Your task to perform on an android device: Go to sound settings Image 0: 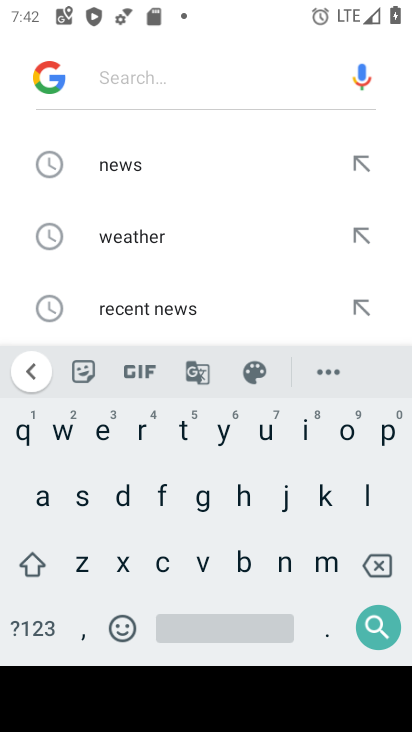
Step 0: press home button
Your task to perform on an android device: Go to sound settings Image 1: 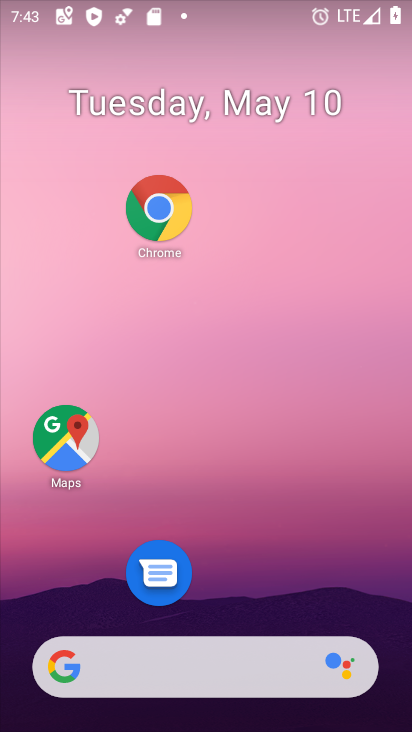
Step 1: drag from (258, 686) to (290, 310)
Your task to perform on an android device: Go to sound settings Image 2: 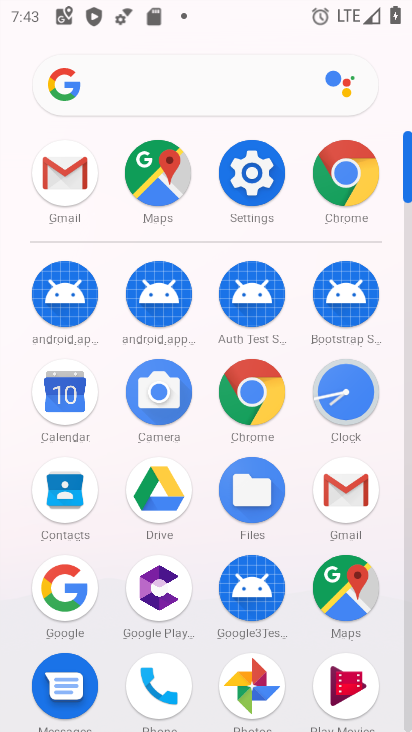
Step 2: click (240, 175)
Your task to perform on an android device: Go to sound settings Image 3: 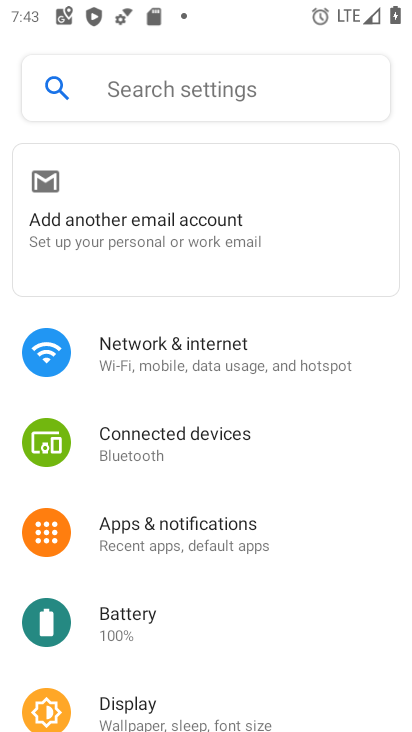
Step 3: click (169, 96)
Your task to perform on an android device: Go to sound settings Image 4: 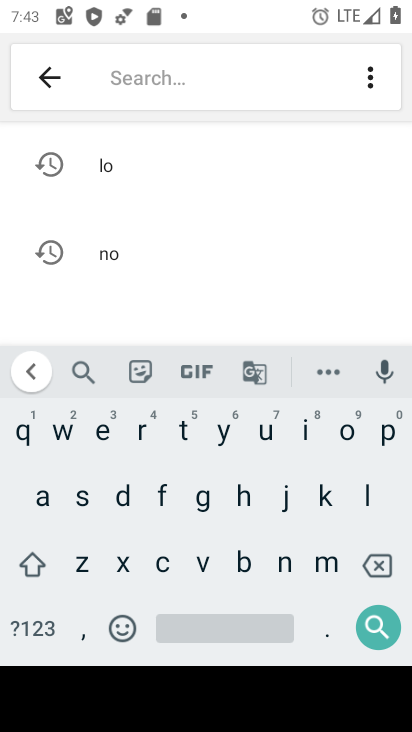
Step 4: click (79, 498)
Your task to perform on an android device: Go to sound settings Image 5: 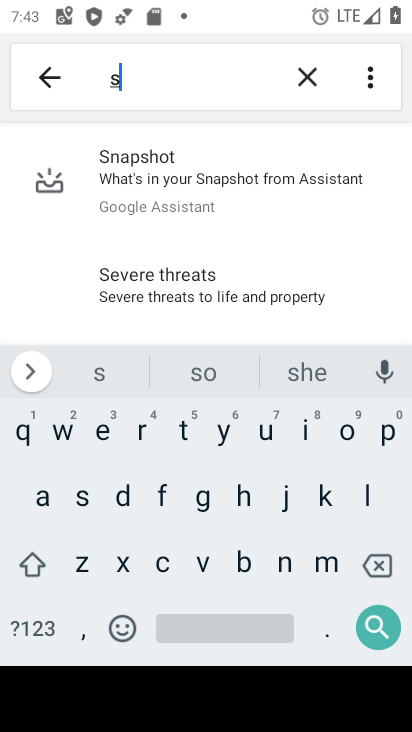
Step 5: click (348, 434)
Your task to perform on an android device: Go to sound settings Image 6: 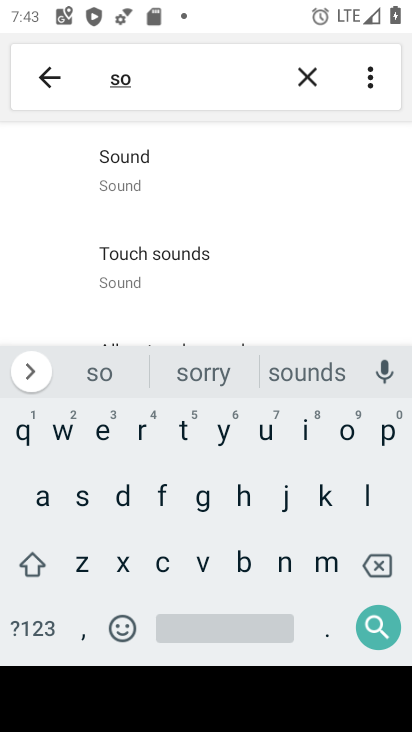
Step 6: click (166, 163)
Your task to perform on an android device: Go to sound settings Image 7: 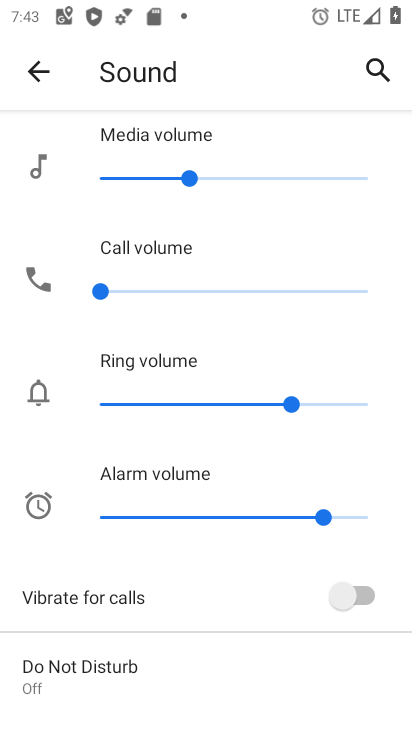
Step 7: task complete